Your task to perform on an android device: turn off location history Image 0: 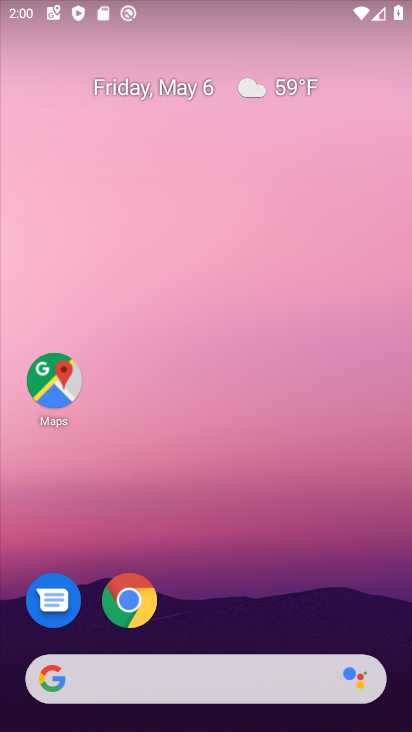
Step 0: drag from (232, 560) to (257, 0)
Your task to perform on an android device: turn off location history Image 1: 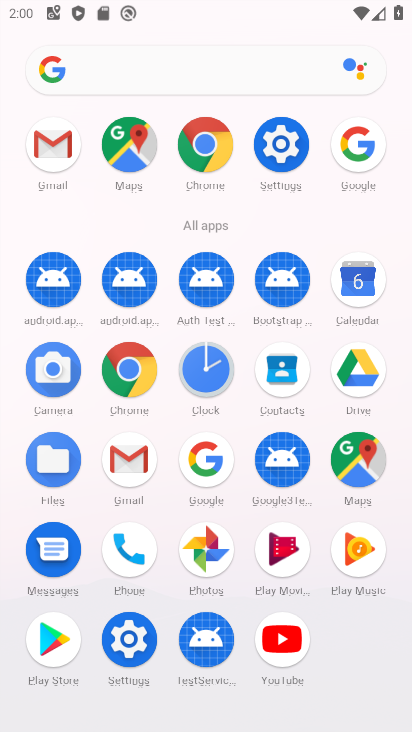
Step 1: click (282, 145)
Your task to perform on an android device: turn off location history Image 2: 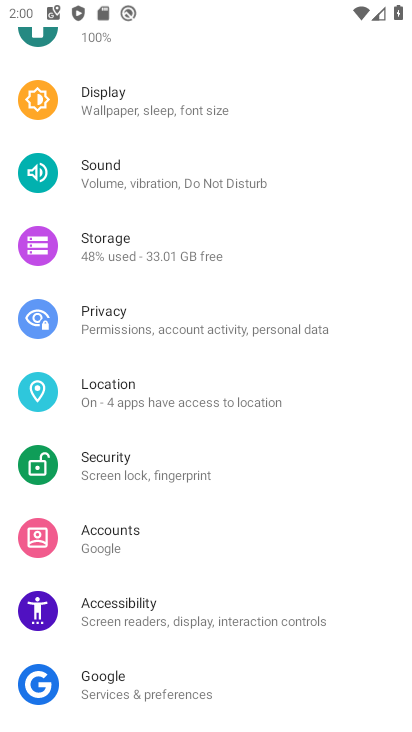
Step 2: click (123, 403)
Your task to perform on an android device: turn off location history Image 3: 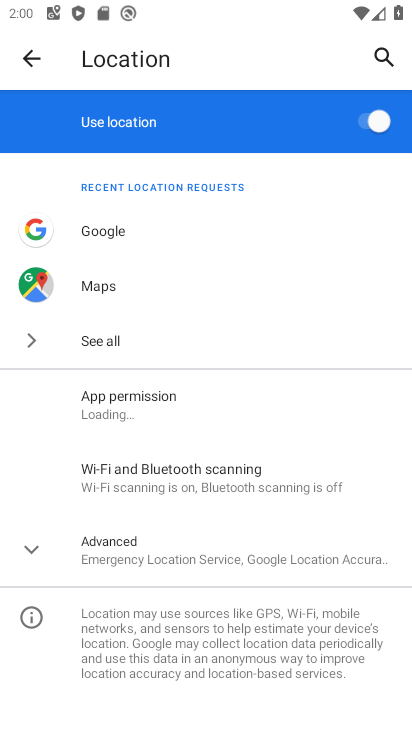
Step 3: click (111, 558)
Your task to perform on an android device: turn off location history Image 4: 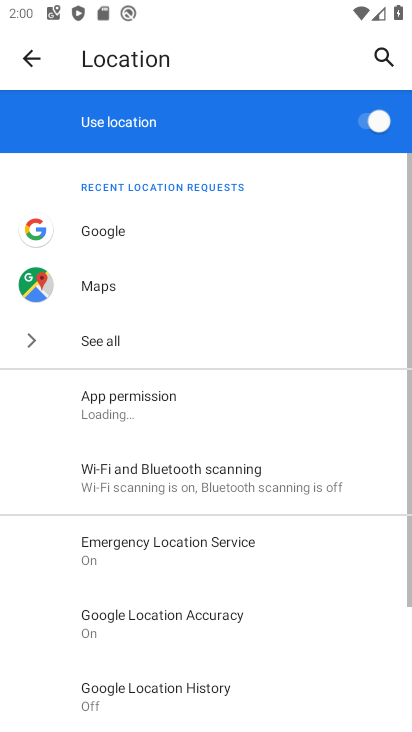
Step 4: drag from (272, 486) to (331, 48)
Your task to perform on an android device: turn off location history Image 5: 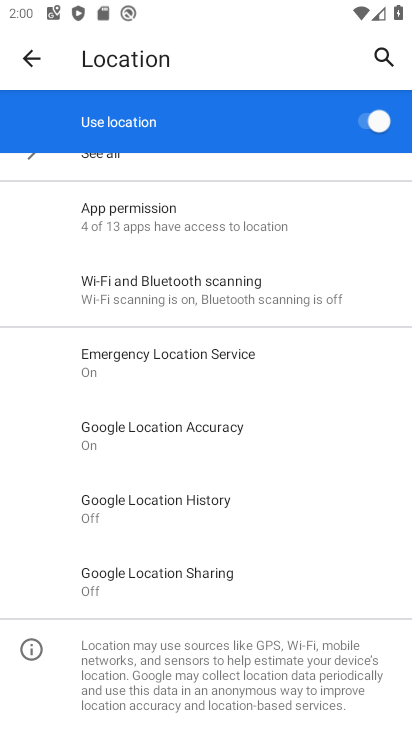
Step 5: click (192, 505)
Your task to perform on an android device: turn off location history Image 6: 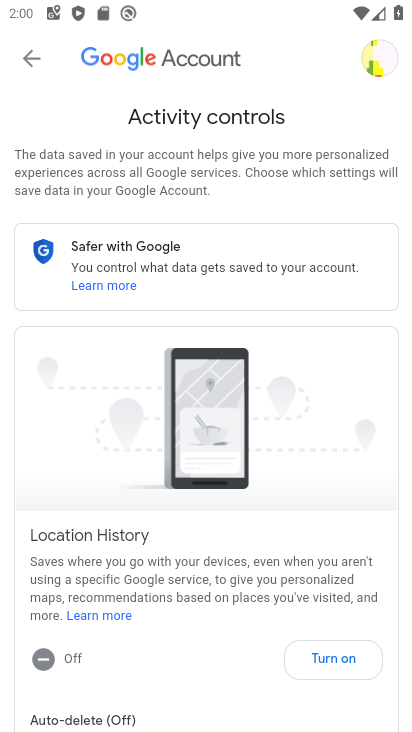
Step 6: task complete